Your task to perform on an android device: Open Yahoo.com Image 0: 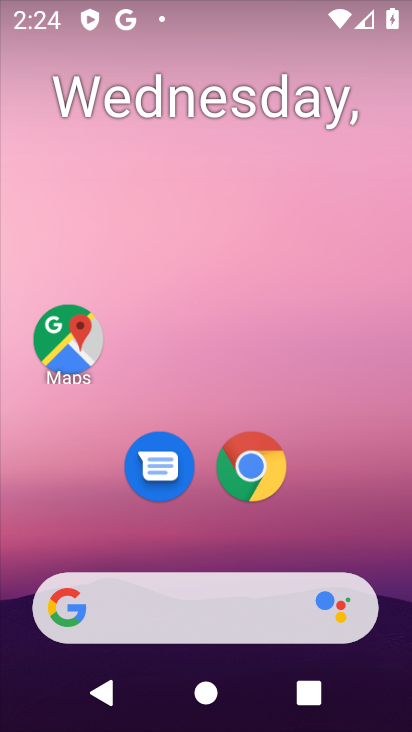
Step 0: click (230, 463)
Your task to perform on an android device: Open Yahoo.com Image 1: 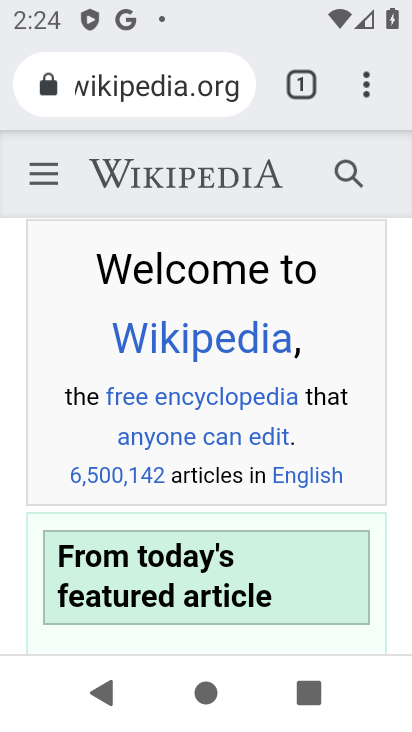
Step 1: click (306, 83)
Your task to perform on an android device: Open Yahoo.com Image 2: 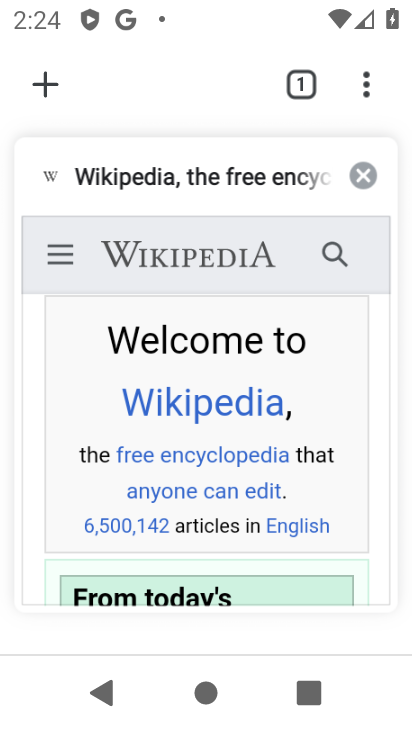
Step 2: click (36, 68)
Your task to perform on an android device: Open Yahoo.com Image 3: 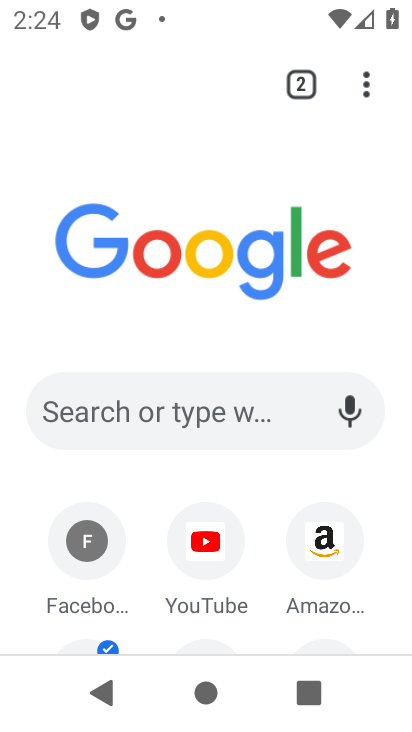
Step 3: drag from (275, 484) to (237, 94)
Your task to perform on an android device: Open Yahoo.com Image 4: 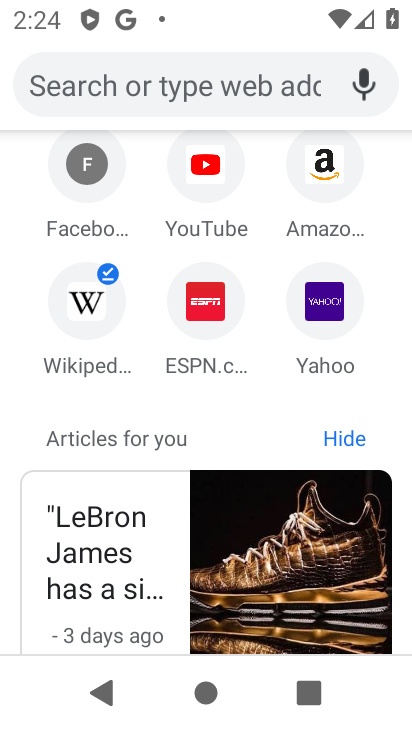
Step 4: click (342, 292)
Your task to perform on an android device: Open Yahoo.com Image 5: 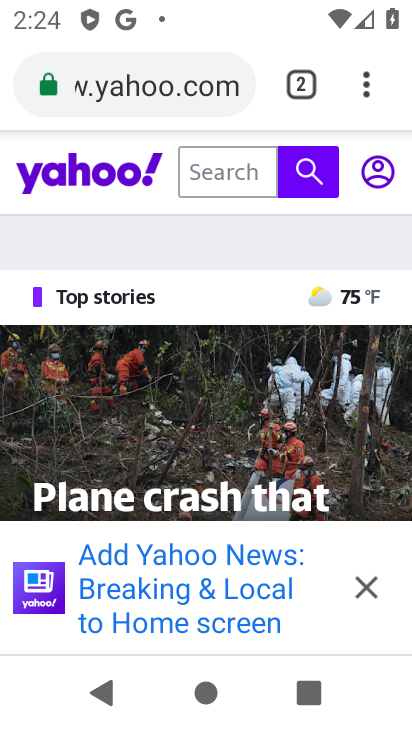
Step 5: task complete